Your task to perform on an android device: Go to Yahoo.com Image 0: 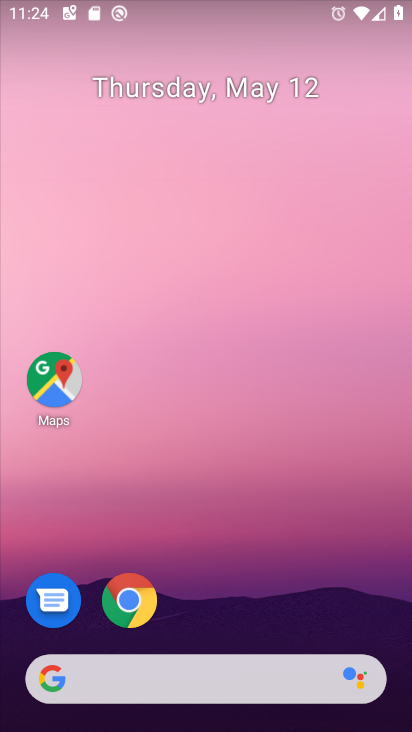
Step 0: click (125, 612)
Your task to perform on an android device: Go to Yahoo.com Image 1: 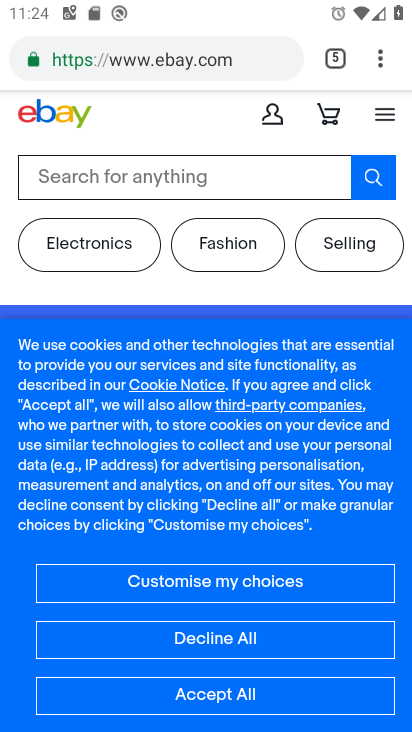
Step 1: click (342, 63)
Your task to perform on an android device: Go to Yahoo.com Image 2: 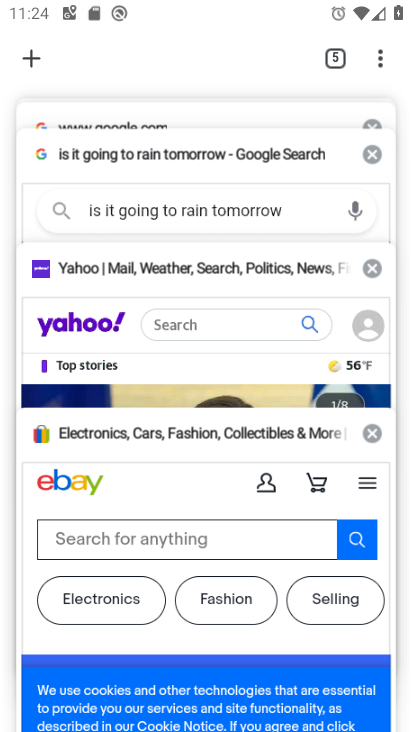
Step 2: click (131, 346)
Your task to perform on an android device: Go to Yahoo.com Image 3: 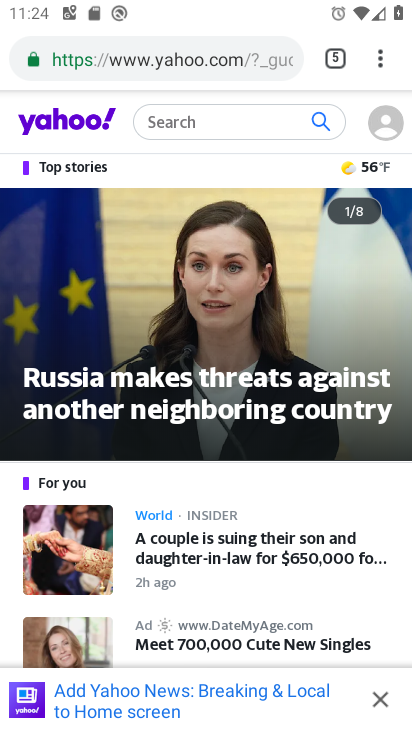
Step 3: task complete